Your task to perform on an android device: snooze an email in the gmail app Image 0: 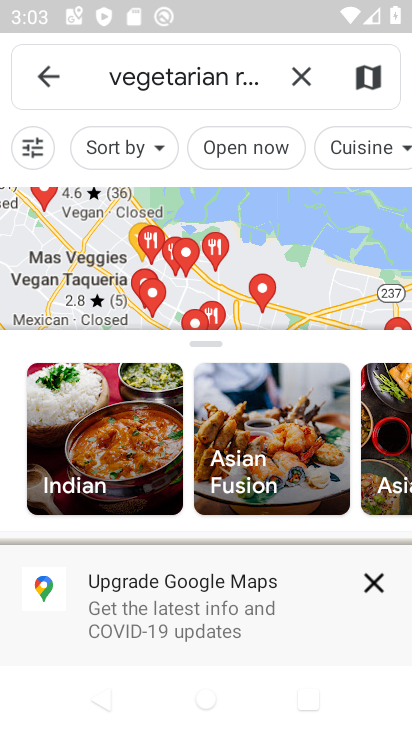
Step 0: press back button
Your task to perform on an android device: snooze an email in the gmail app Image 1: 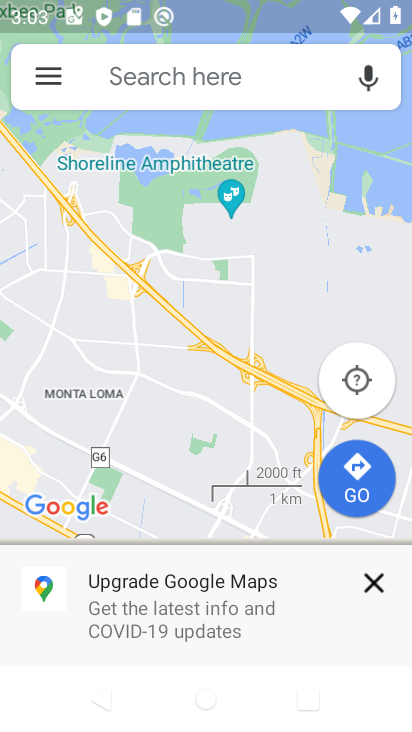
Step 1: press back button
Your task to perform on an android device: snooze an email in the gmail app Image 2: 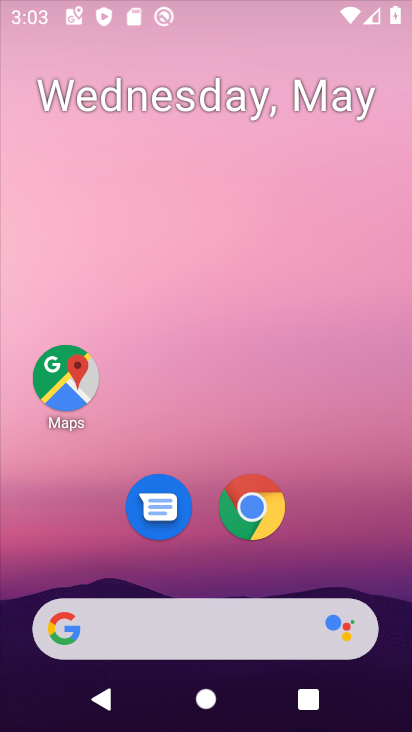
Step 2: drag from (177, 493) to (243, 63)
Your task to perform on an android device: snooze an email in the gmail app Image 3: 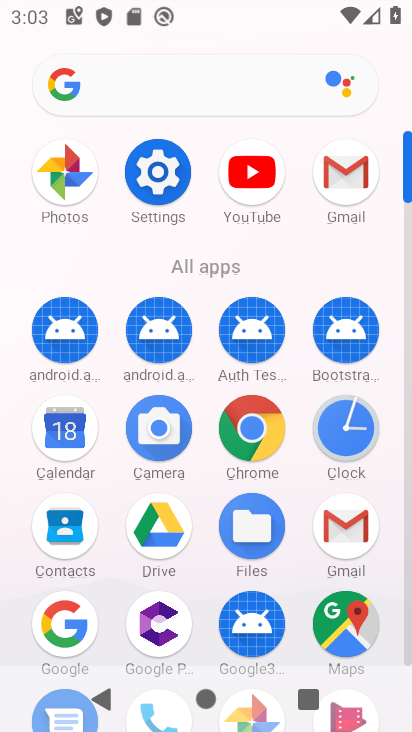
Step 3: click (341, 164)
Your task to perform on an android device: snooze an email in the gmail app Image 4: 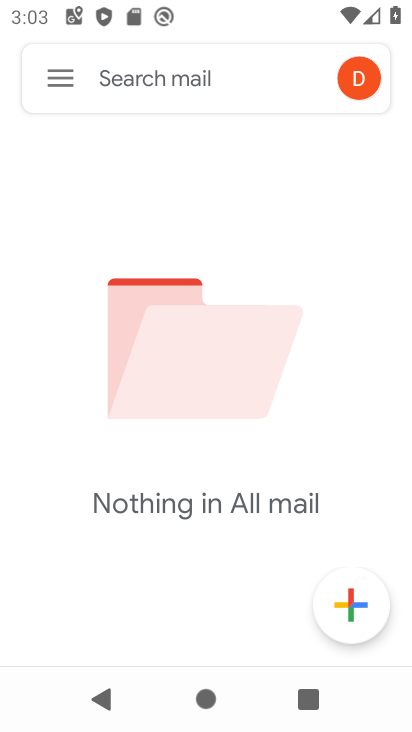
Step 4: click (53, 63)
Your task to perform on an android device: snooze an email in the gmail app Image 5: 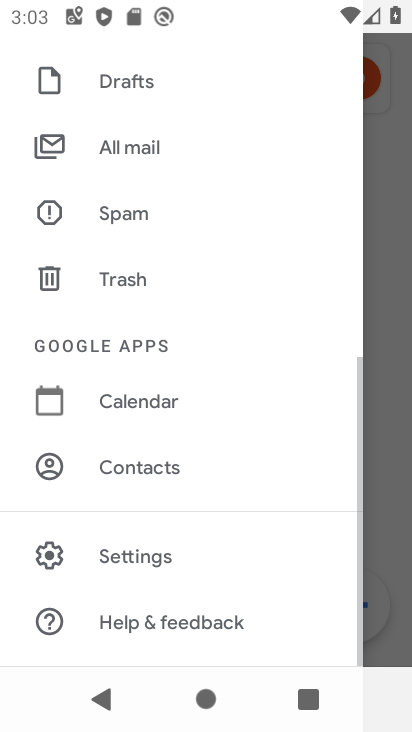
Step 5: task complete